Your task to perform on an android device: Set the phone to "Do not disturb". Image 0: 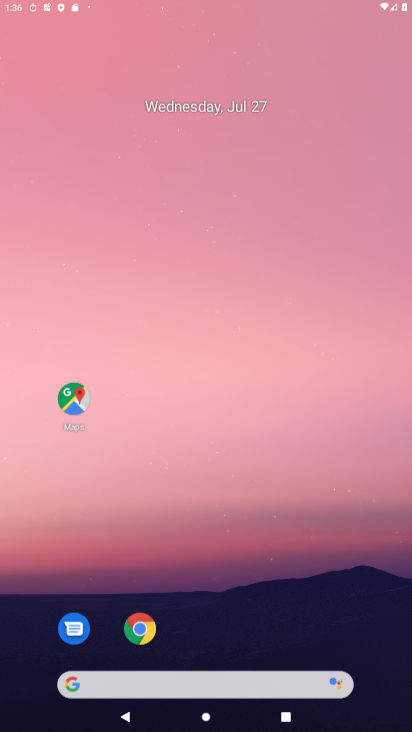
Step 0: press home button
Your task to perform on an android device: Set the phone to "Do not disturb". Image 1: 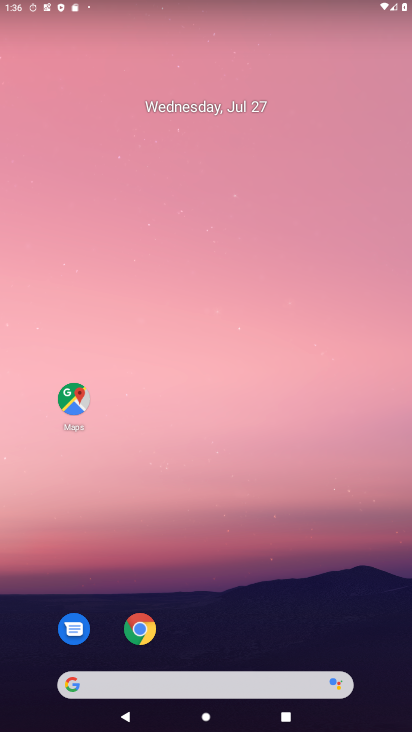
Step 1: drag from (182, 4) to (271, 443)
Your task to perform on an android device: Set the phone to "Do not disturb". Image 2: 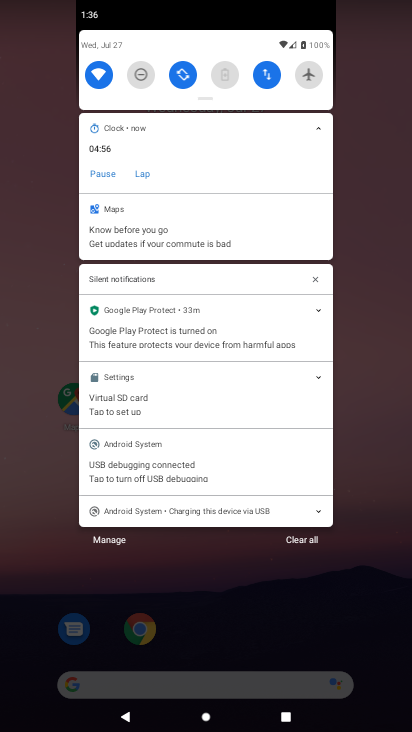
Step 2: click (145, 73)
Your task to perform on an android device: Set the phone to "Do not disturb". Image 3: 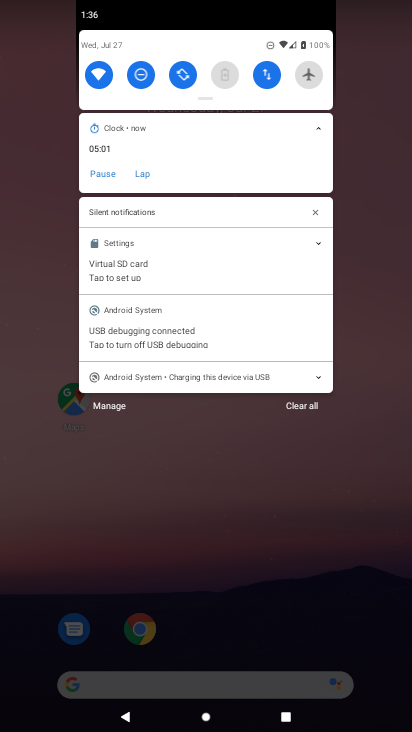
Step 3: task complete